Your task to perform on an android device: Open Amazon Image 0: 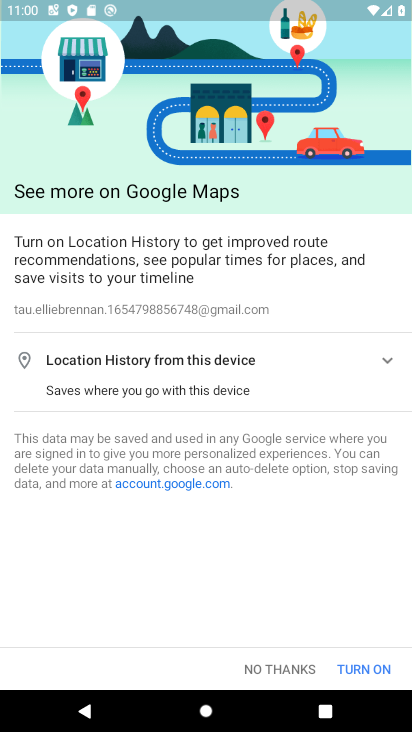
Step 0: press home button
Your task to perform on an android device: Open Amazon Image 1: 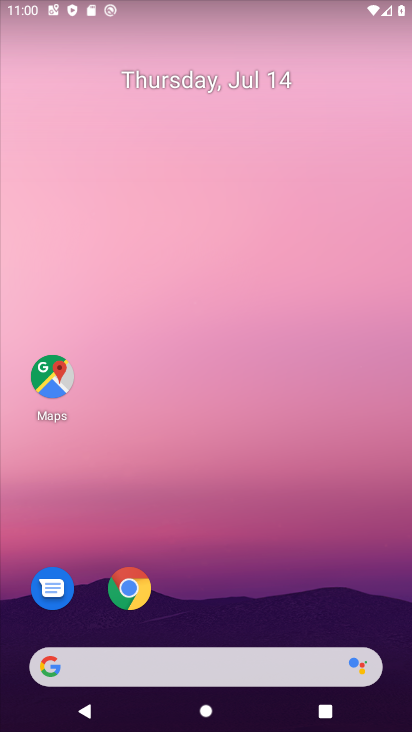
Step 1: click (129, 592)
Your task to perform on an android device: Open Amazon Image 2: 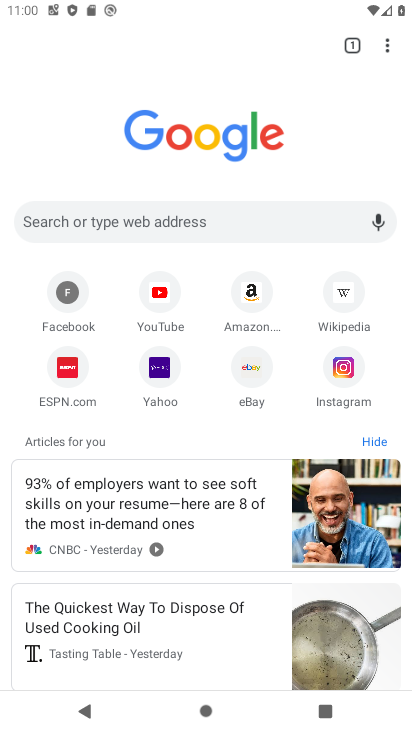
Step 2: click (255, 292)
Your task to perform on an android device: Open Amazon Image 3: 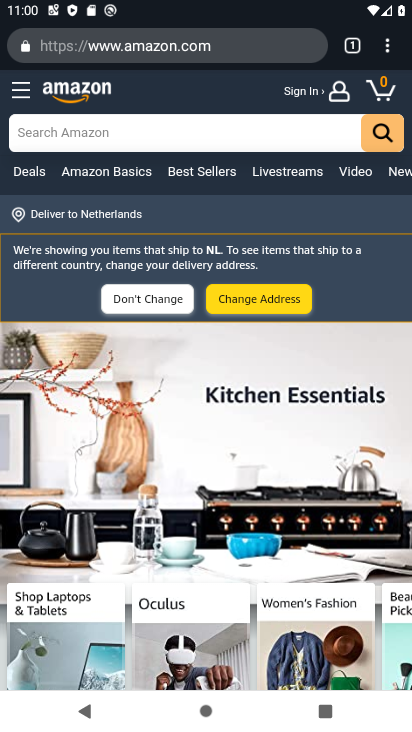
Step 3: task complete